Your task to perform on an android device: open app "Indeed Job Search" Image 0: 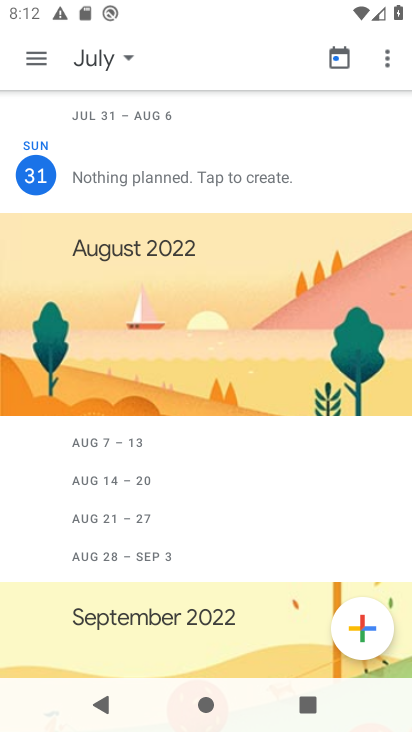
Step 0: press home button
Your task to perform on an android device: open app "Indeed Job Search" Image 1: 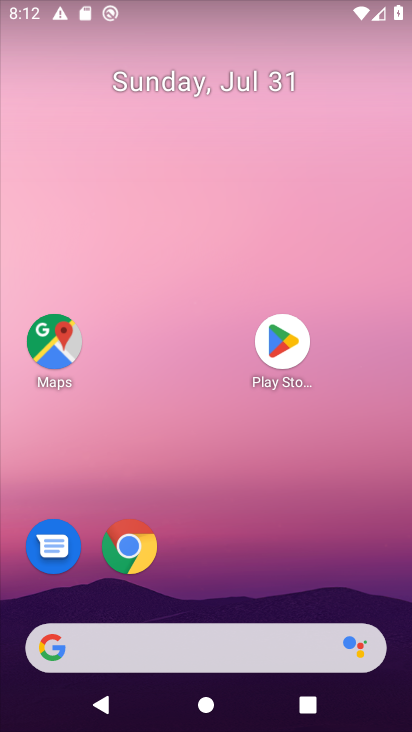
Step 1: click (287, 339)
Your task to perform on an android device: open app "Indeed Job Search" Image 2: 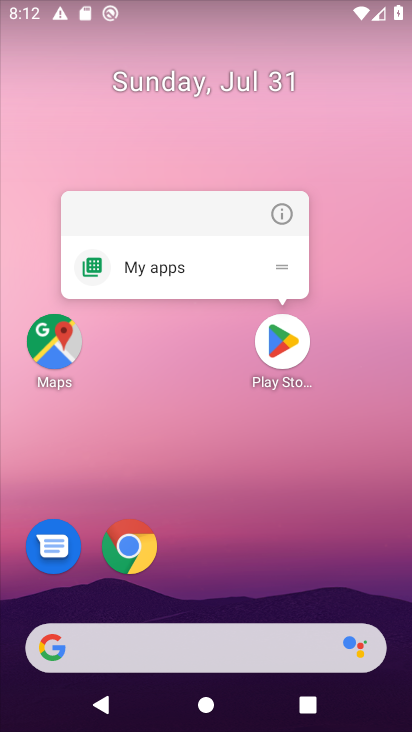
Step 2: click (278, 345)
Your task to perform on an android device: open app "Indeed Job Search" Image 3: 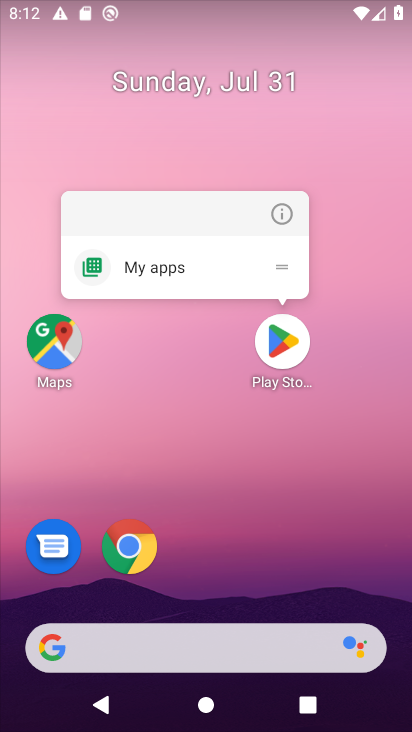
Step 3: click (278, 342)
Your task to perform on an android device: open app "Indeed Job Search" Image 4: 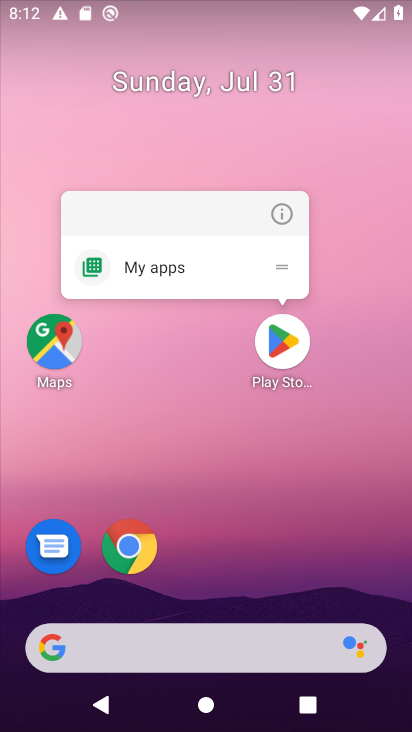
Step 4: click (281, 347)
Your task to perform on an android device: open app "Indeed Job Search" Image 5: 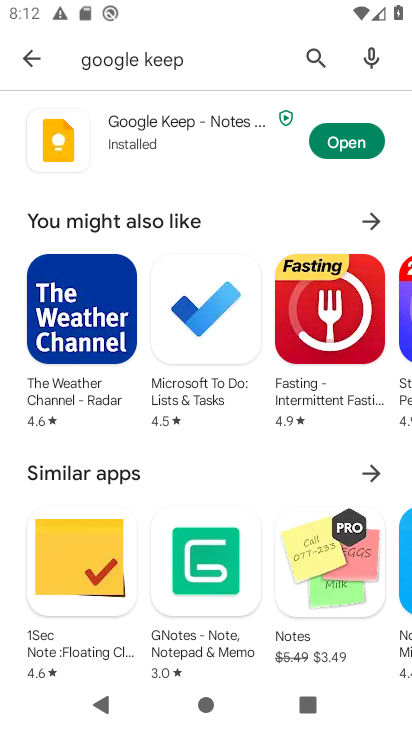
Step 5: click (314, 51)
Your task to perform on an android device: open app "Indeed Job Search" Image 6: 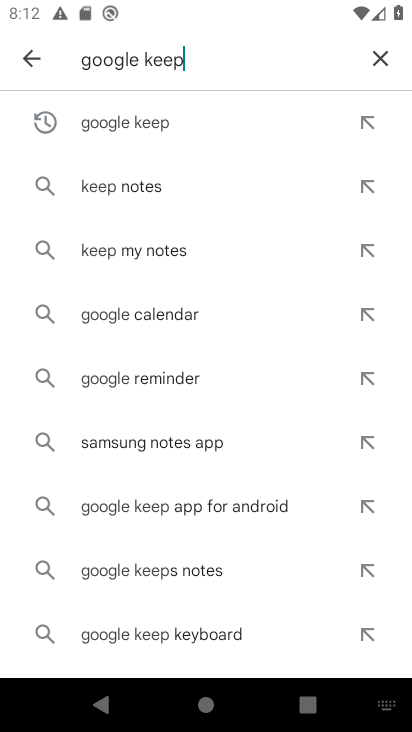
Step 6: click (379, 56)
Your task to perform on an android device: open app "Indeed Job Search" Image 7: 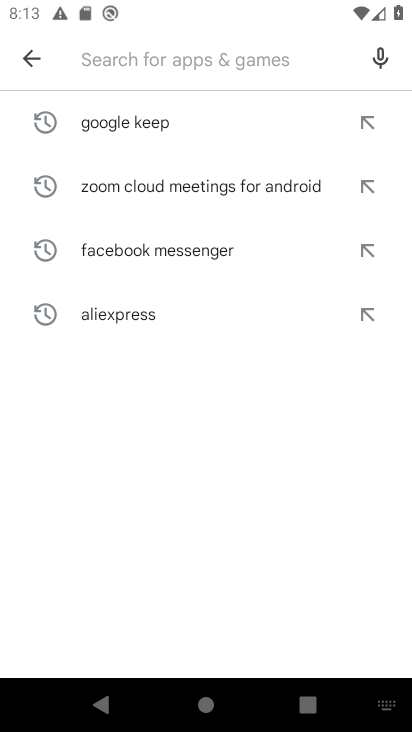
Step 7: type "Indeed Job Search"
Your task to perform on an android device: open app "Indeed Job Search" Image 8: 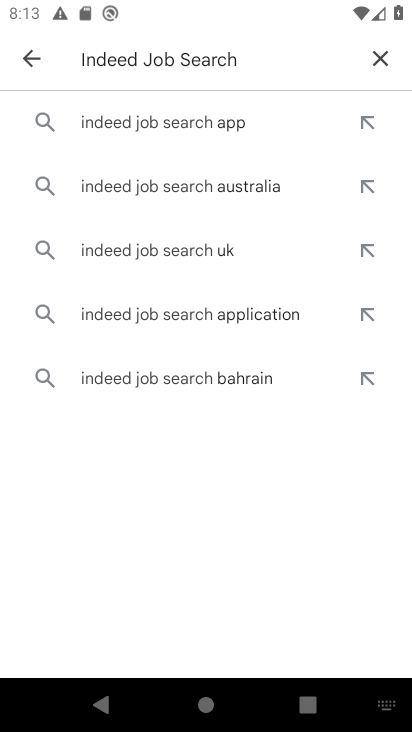
Step 8: click (171, 116)
Your task to perform on an android device: open app "Indeed Job Search" Image 9: 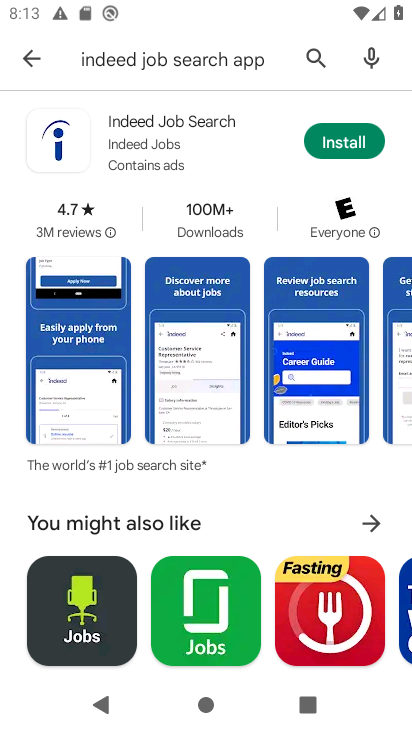
Step 9: task complete